Your task to perform on an android device: Open Google Chrome Image 0: 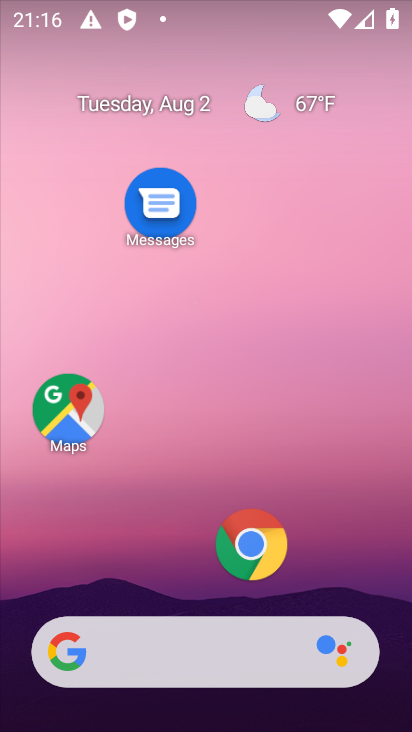
Step 0: click (257, 546)
Your task to perform on an android device: Open Google Chrome Image 1: 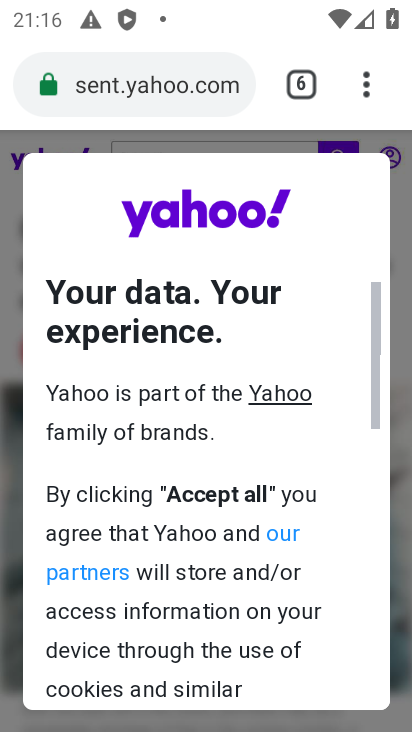
Step 1: task complete